Your task to perform on an android device: delete a single message in the gmail app Image 0: 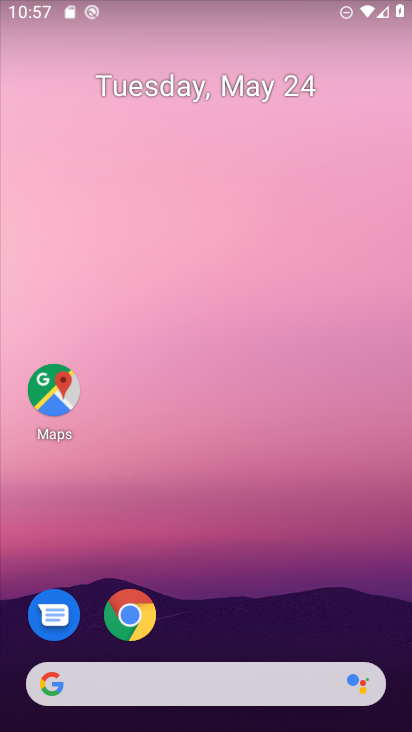
Step 0: press home button
Your task to perform on an android device: delete a single message in the gmail app Image 1: 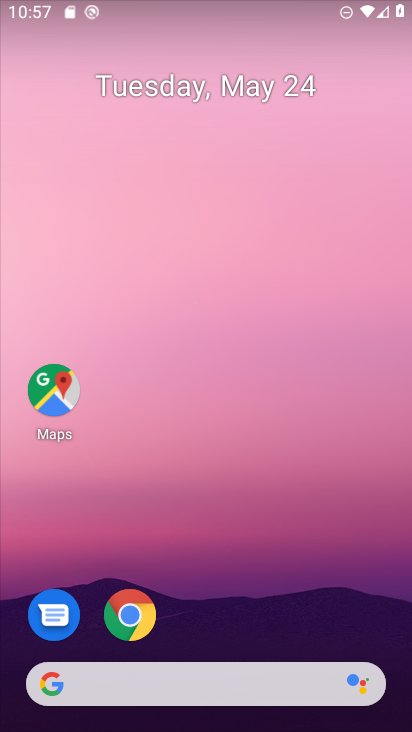
Step 1: drag from (292, 705) to (221, 122)
Your task to perform on an android device: delete a single message in the gmail app Image 2: 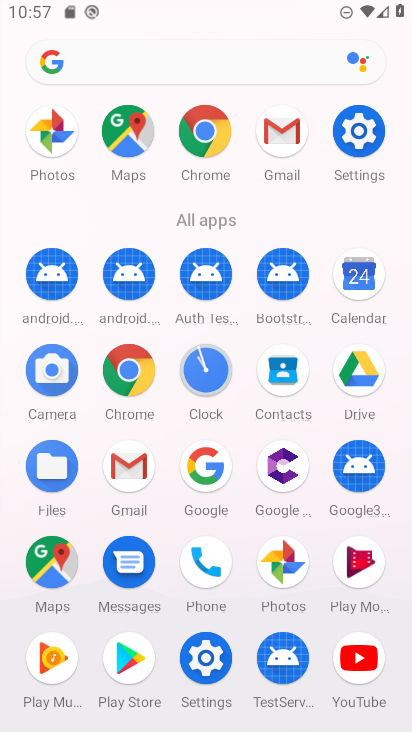
Step 2: click (263, 137)
Your task to perform on an android device: delete a single message in the gmail app Image 3: 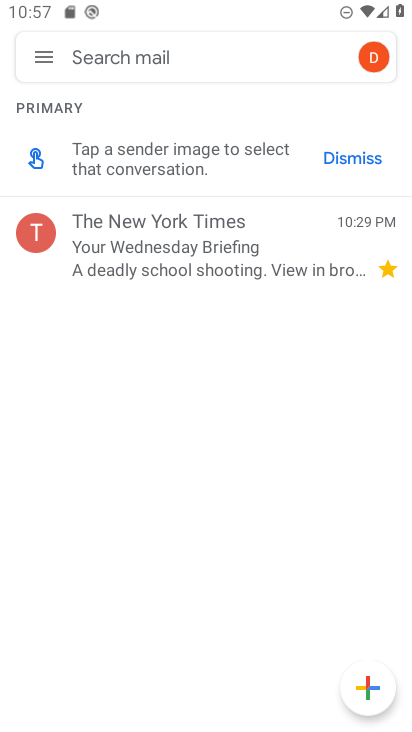
Step 3: click (329, 162)
Your task to perform on an android device: delete a single message in the gmail app Image 4: 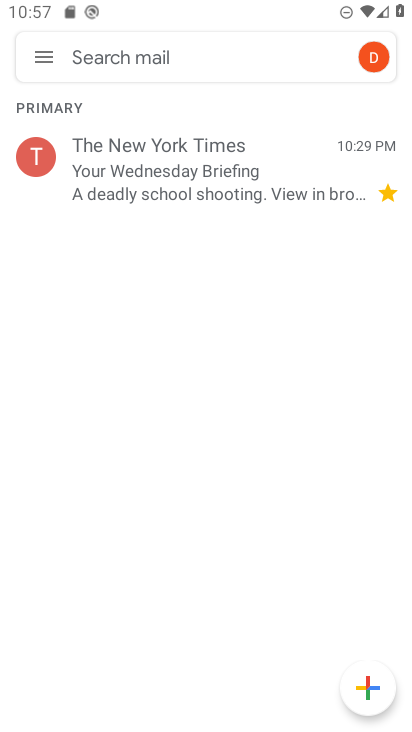
Step 4: click (47, 73)
Your task to perform on an android device: delete a single message in the gmail app Image 5: 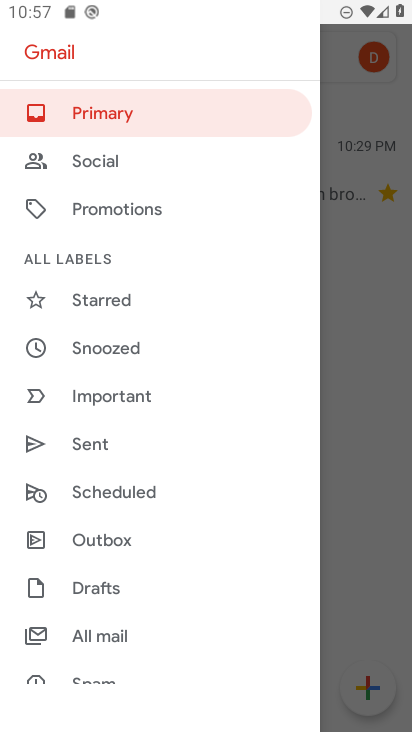
Step 5: click (104, 636)
Your task to perform on an android device: delete a single message in the gmail app Image 6: 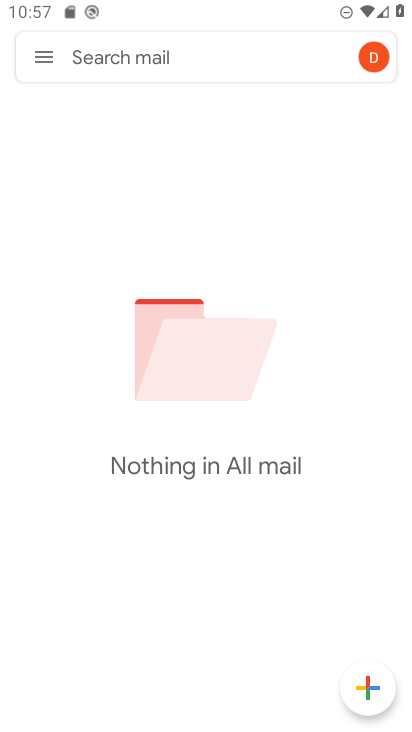
Step 6: task complete